Your task to perform on an android device: Check the news Image 0: 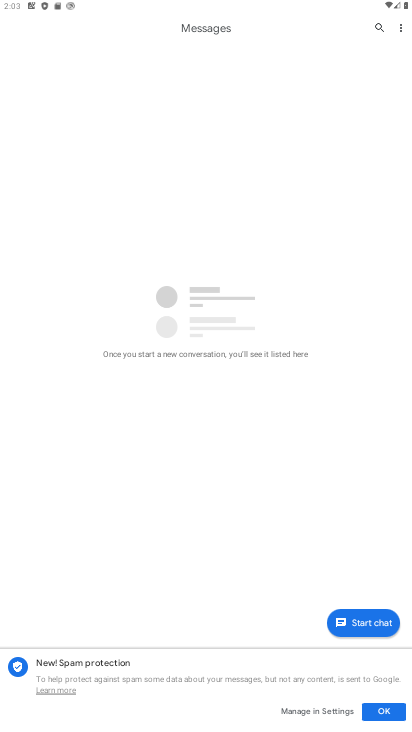
Step 0: press home button
Your task to perform on an android device: Check the news Image 1: 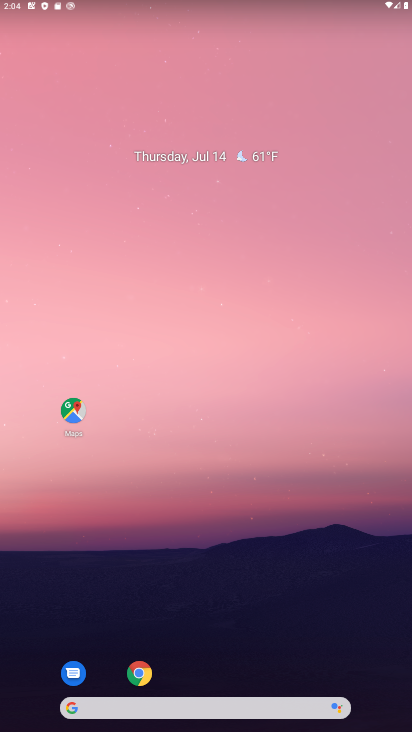
Step 1: click (122, 706)
Your task to perform on an android device: Check the news Image 2: 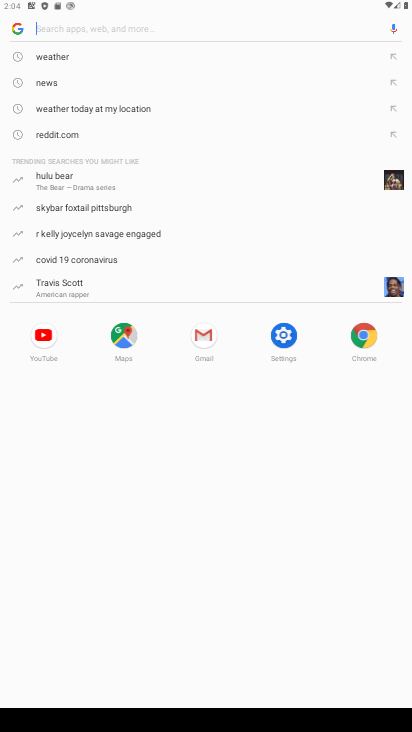
Step 2: click (19, 30)
Your task to perform on an android device: Check the news Image 3: 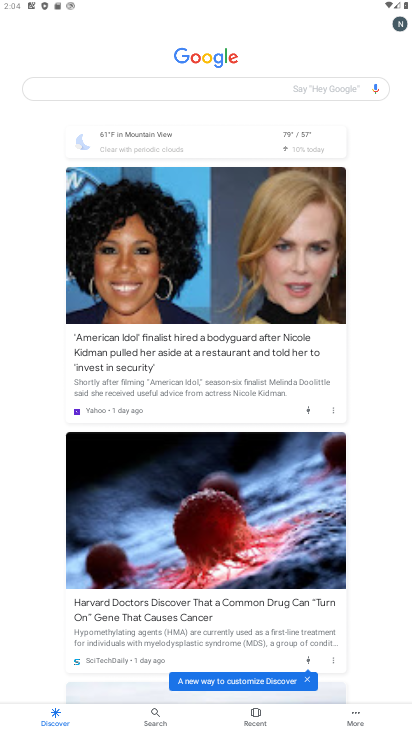
Step 3: task complete